Your task to perform on an android device: Search for sushi restaurants on Maps Image 0: 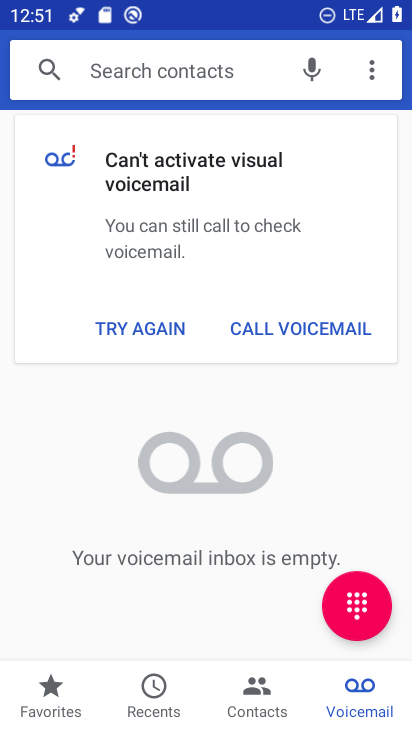
Step 0: click (60, 453)
Your task to perform on an android device: Search for sushi restaurants on Maps Image 1: 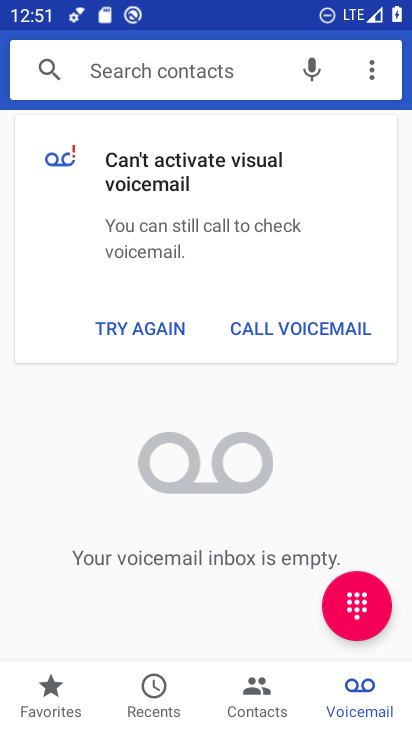
Step 1: press home button
Your task to perform on an android device: Search for sushi restaurants on Maps Image 2: 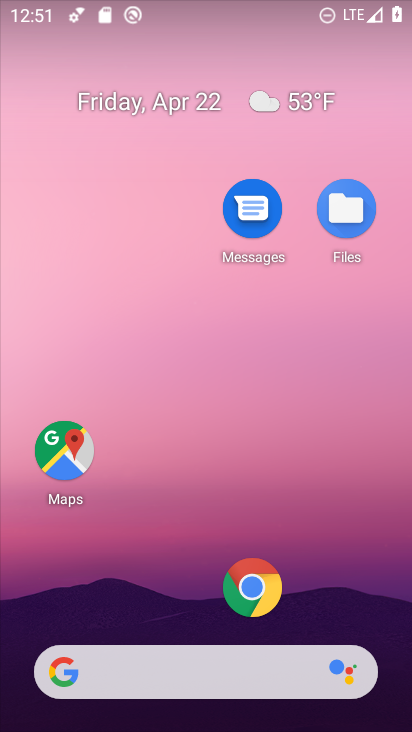
Step 2: click (67, 459)
Your task to perform on an android device: Search for sushi restaurants on Maps Image 3: 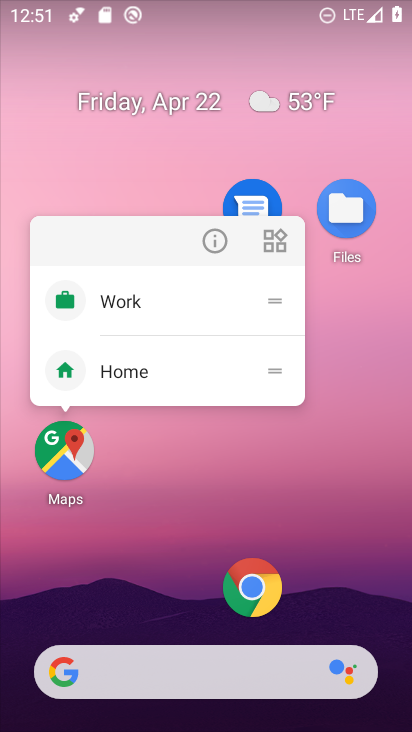
Step 3: click (219, 240)
Your task to perform on an android device: Search for sushi restaurants on Maps Image 4: 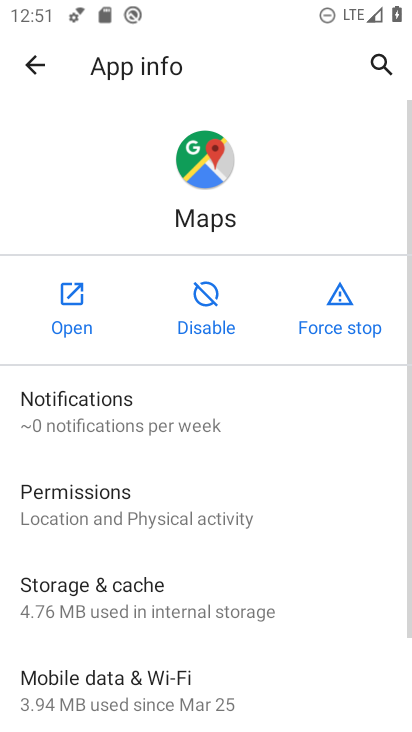
Step 4: click (79, 293)
Your task to perform on an android device: Search for sushi restaurants on Maps Image 5: 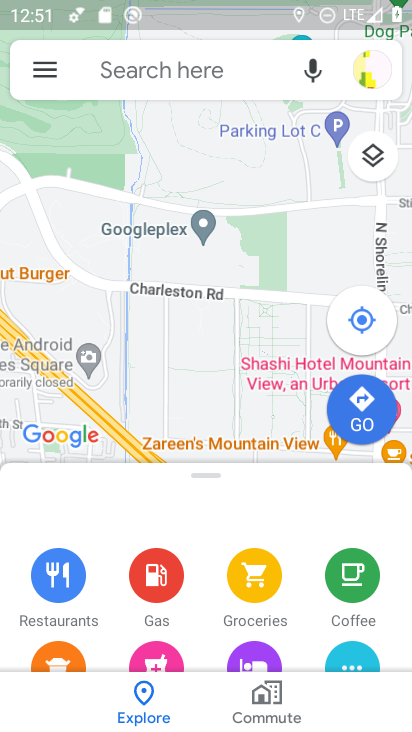
Step 5: click (117, 86)
Your task to perform on an android device: Search for sushi restaurants on Maps Image 6: 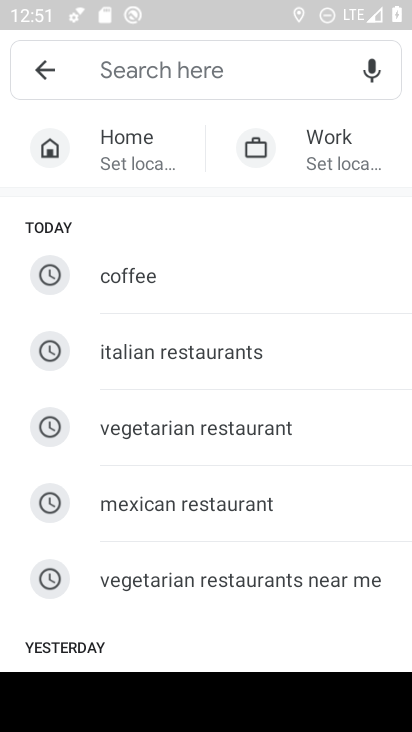
Step 6: type "sushi restaurants"
Your task to perform on an android device: Search for sushi restaurants on Maps Image 7: 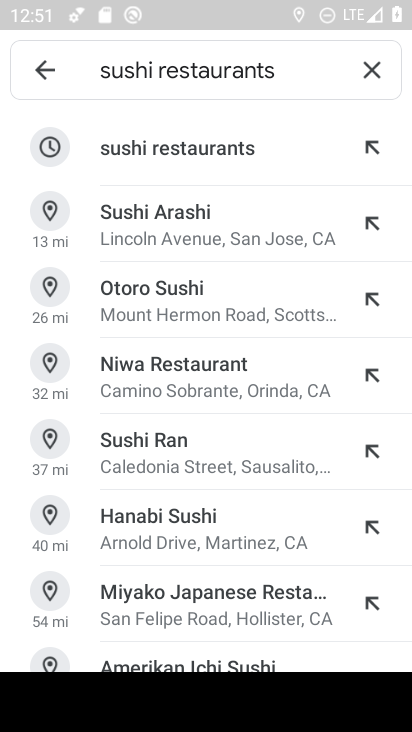
Step 7: click (118, 155)
Your task to perform on an android device: Search for sushi restaurants on Maps Image 8: 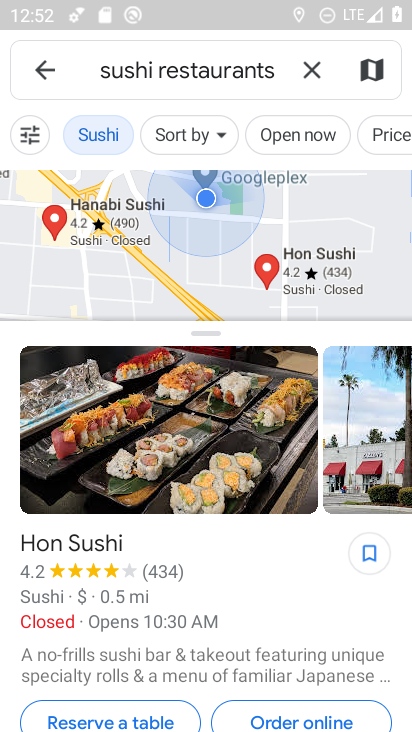
Step 8: task complete